Your task to perform on an android device: toggle airplane mode Image 0: 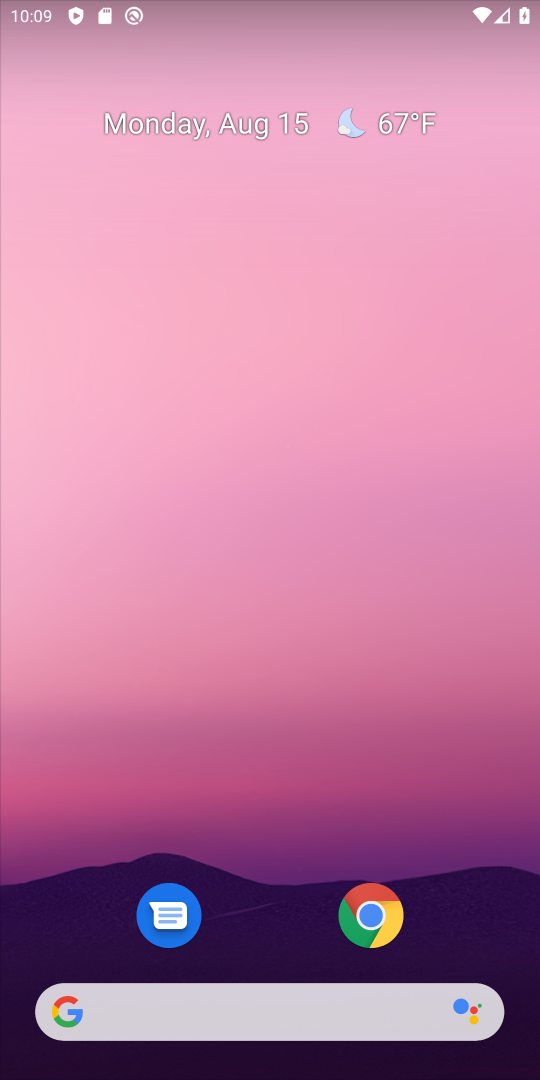
Step 0: drag from (498, 9) to (460, 722)
Your task to perform on an android device: toggle airplane mode Image 1: 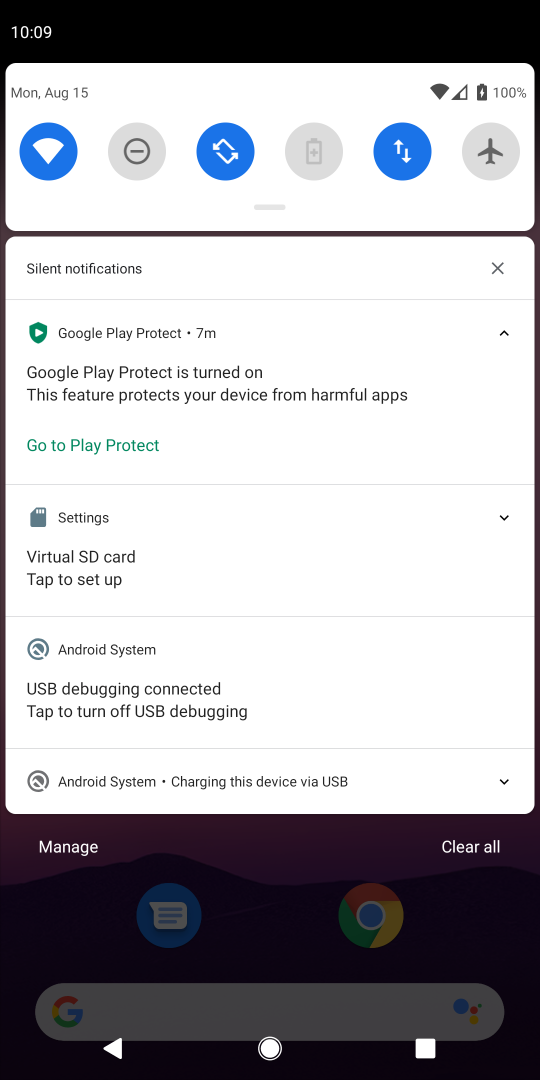
Step 1: click (470, 154)
Your task to perform on an android device: toggle airplane mode Image 2: 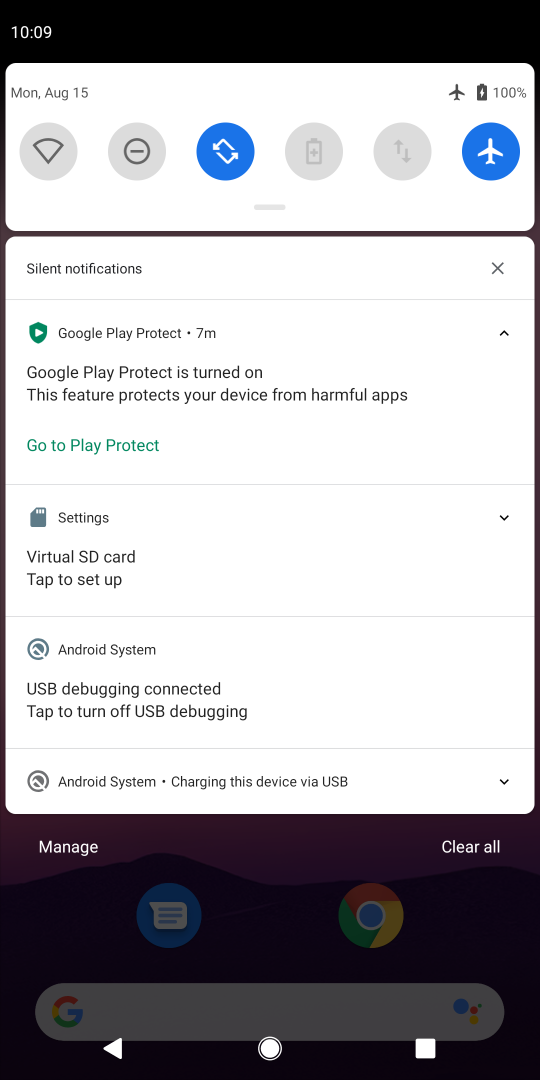
Step 2: task complete